Your task to perform on an android device: read, delete, or share a saved page in the chrome app Image 0: 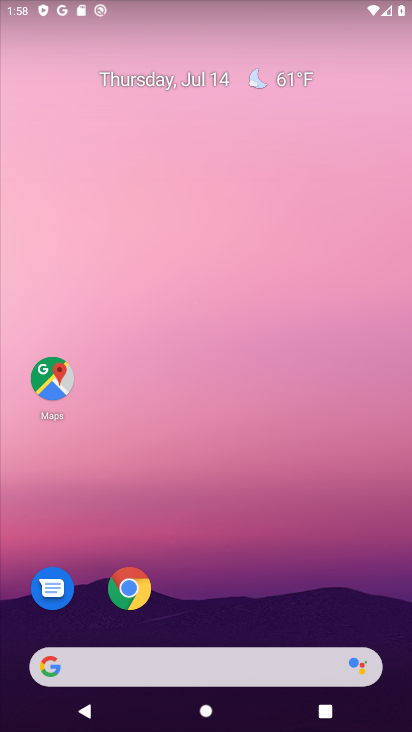
Step 0: click (134, 590)
Your task to perform on an android device: read, delete, or share a saved page in the chrome app Image 1: 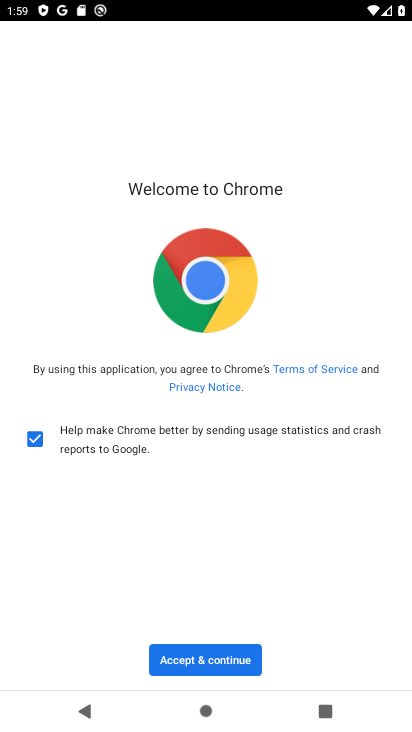
Step 1: click (193, 663)
Your task to perform on an android device: read, delete, or share a saved page in the chrome app Image 2: 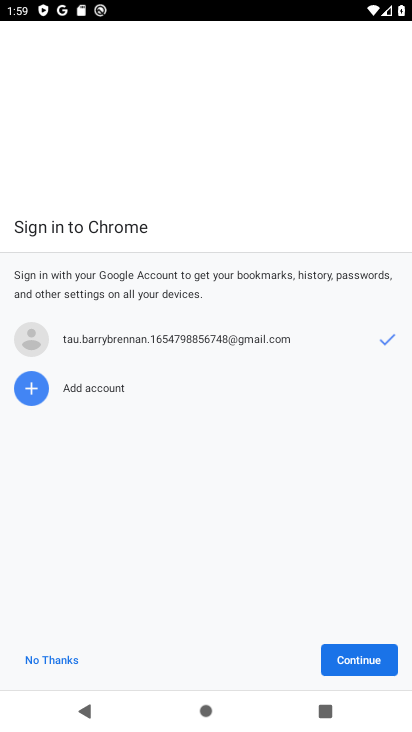
Step 2: click (353, 660)
Your task to perform on an android device: read, delete, or share a saved page in the chrome app Image 3: 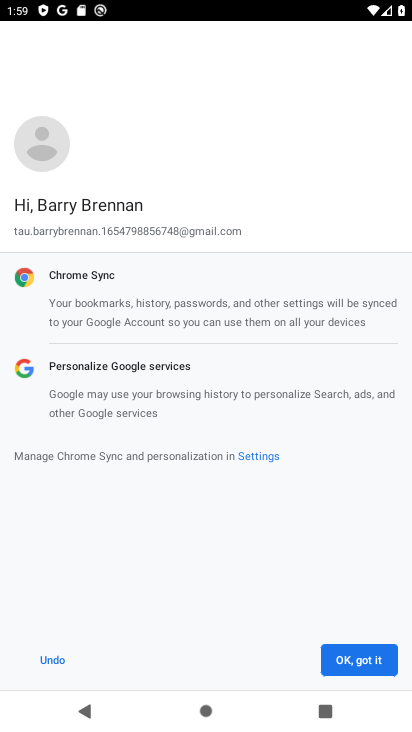
Step 3: click (353, 660)
Your task to perform on an android device: read, delete, or share a saved page in the chrome app Image 4: 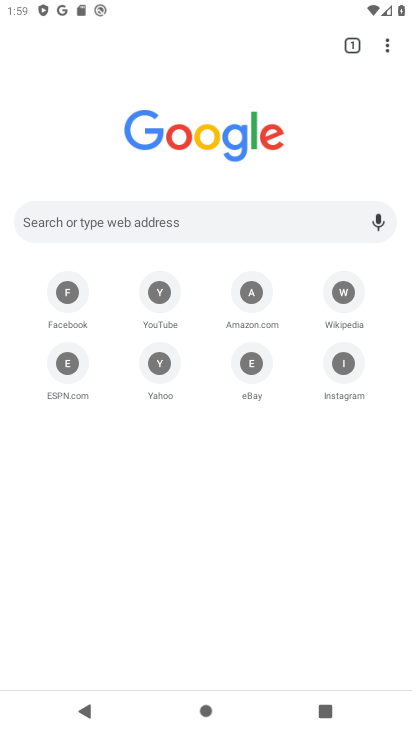
Step 4: click (386, 40)
Your task to perform on an android device: read, delete, or share a saved page in the chrome app Image 5: 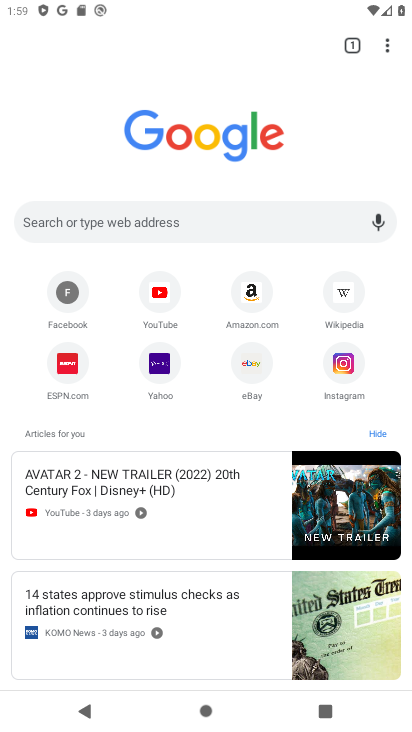
Step 5: click (383, 47)
Your task to perform on an android device: read, delete, or share a saved page in the chrome app Image 6: 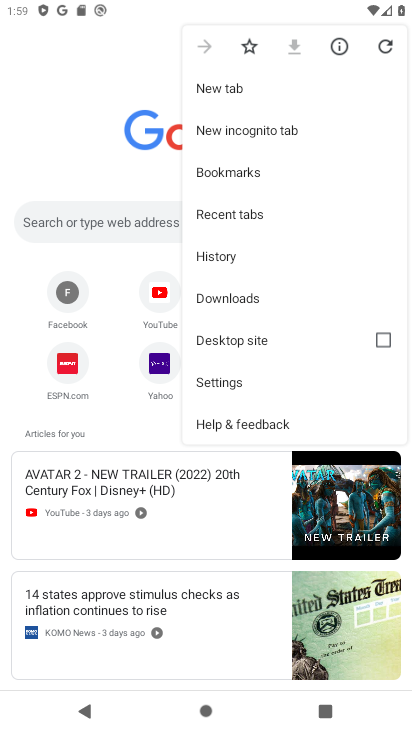
Step 6: click (245, 301)
Your task to perform on an android device: read, delete, or share a saved page in the chrome app Image 7: 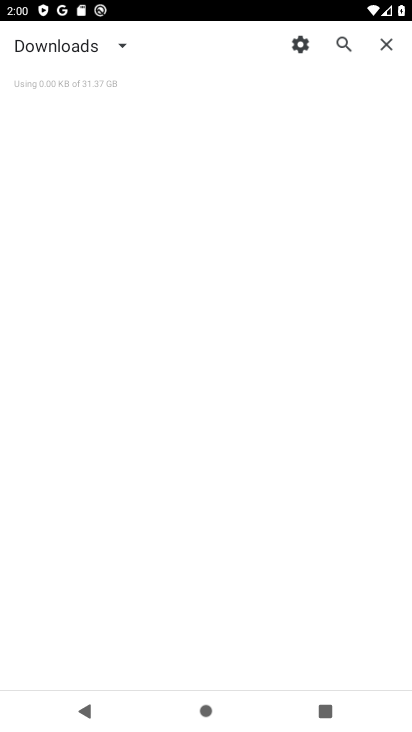
Step 7: task complete